Your task to perform on an android device: Show me recent news Image 0: 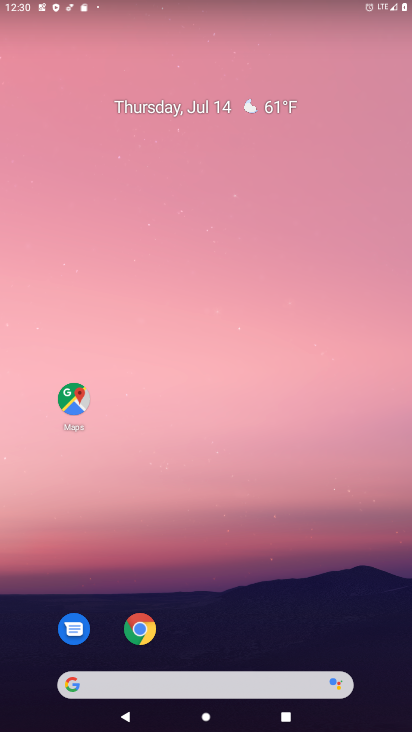
Step 0: drag from (6, 247) to (407, 417)
Your task to perform on an android device: Show me recent news Image 1: 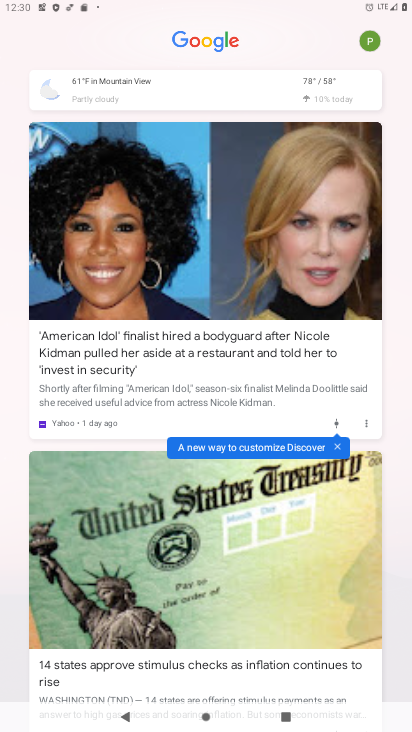
Step 1: task complete